Your task to perform on an android device: Go to CNN.com Image 0: 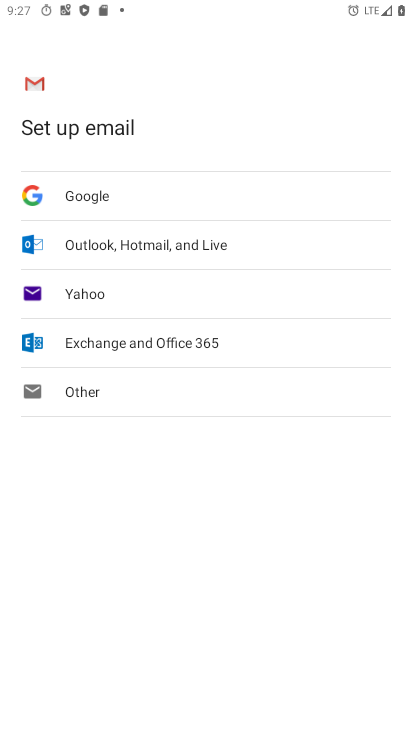
Step 0: press back button
Your task to perform on an android device: Go to CNN.com Image 1: 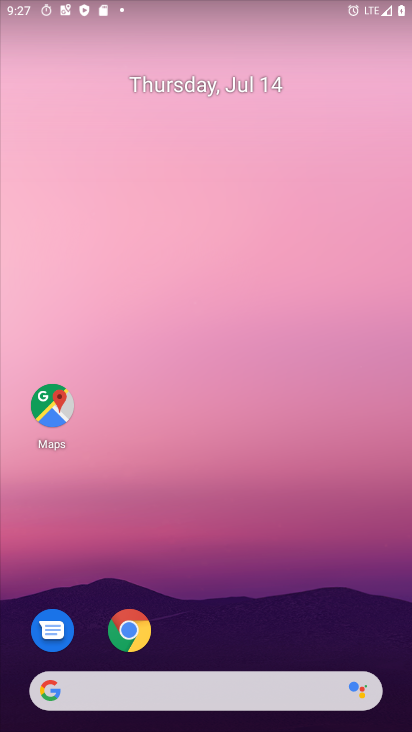
Step 1: click (133, 633)
Your task to perform on an android device: Go to CNN.com Image 2: 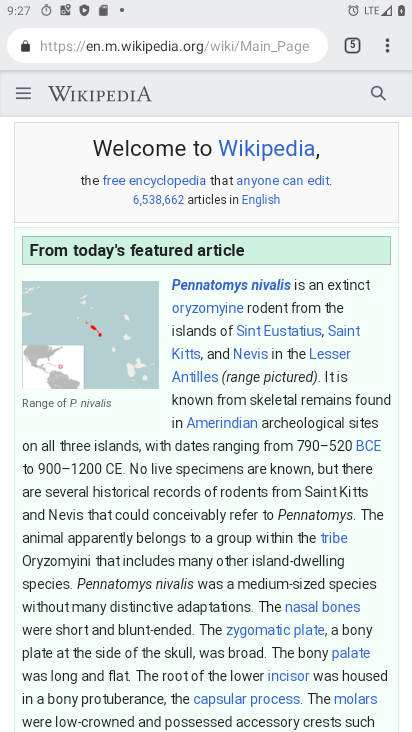
Step 2: click (388, 48)
Your task to perform on an android device: Go to CNN.com Image 3: 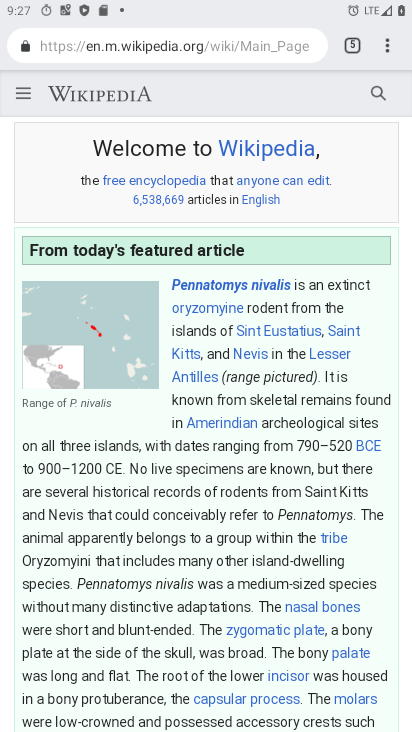
Step 3: click (390, 49)
Your task to perform on an android device: Go to CNN.com Image 4: 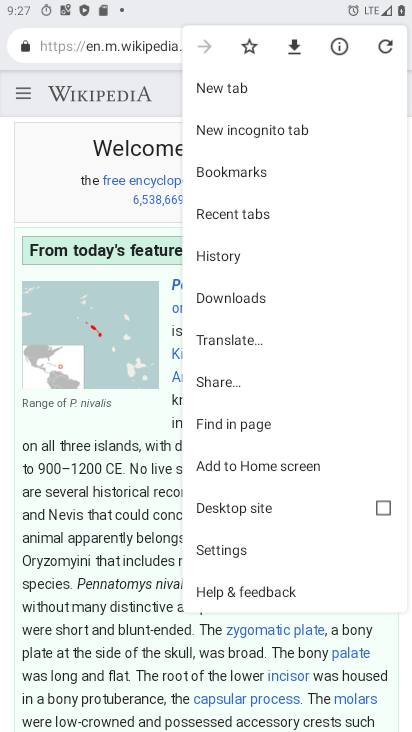
Step 4: click (219, 86)
Your task to perform on an android device: Go to CNN.com Image 5: 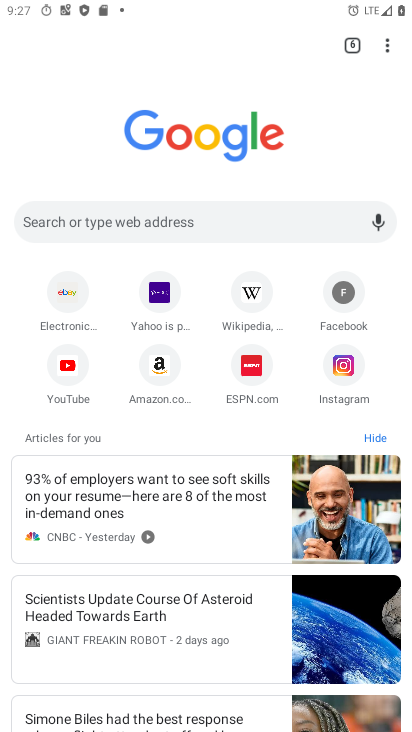
Step 5: click (137, 222)
Your task to perform on an android device: Go to CNN.com Image 6: 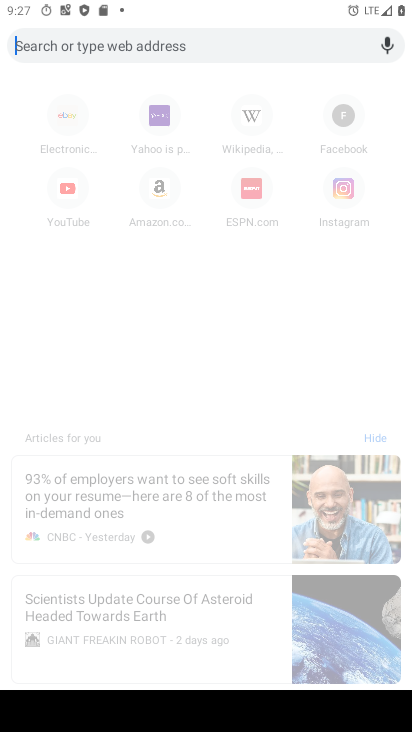
Step 6: type "CNN.com"
Your task to perform on an android device: Go to CNN.com Image 7: 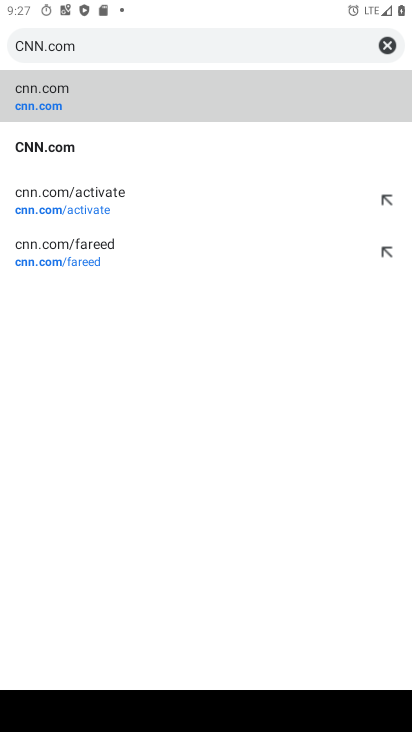
Step 7: click (47, 90)
Your task to perform on an android device: Go to CNN.com Image 8: 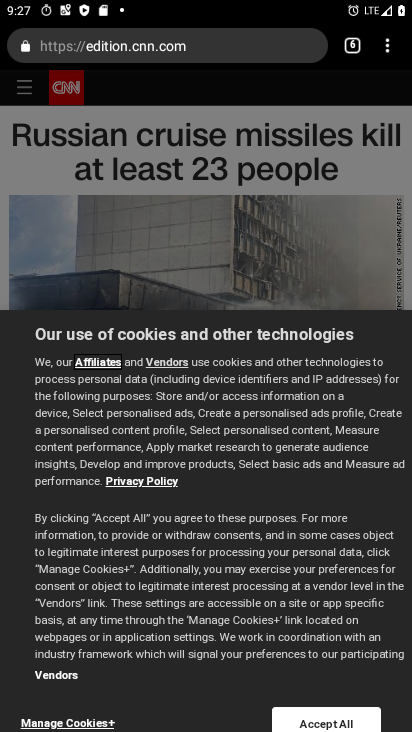
Step 8: task complete